Your task to perform on an android device: open a bookmark in the chrome app Image 0: 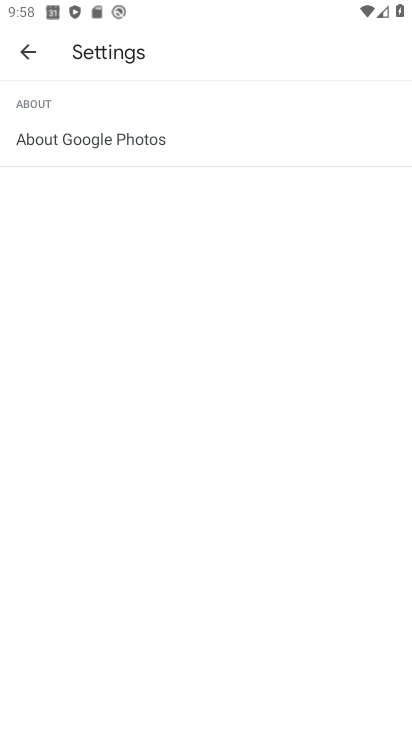
Step 0: press home button
Your task to perform on an android device: open a bookmark in the chrome app Image 1: 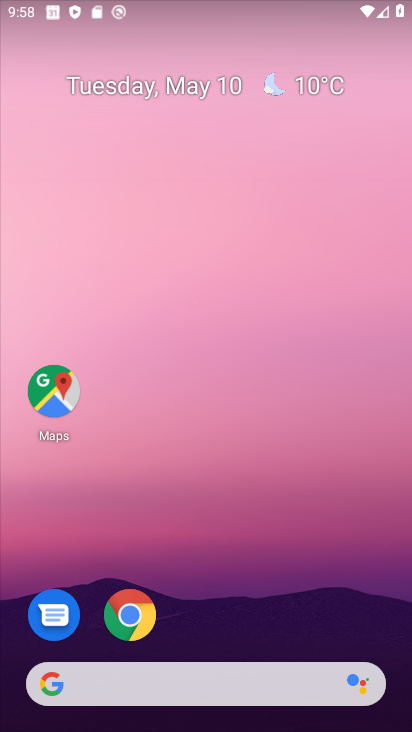
Step 1: click (129, 616)
Your task to perform on an android device: open a bookmark in the chrome app Image 2: 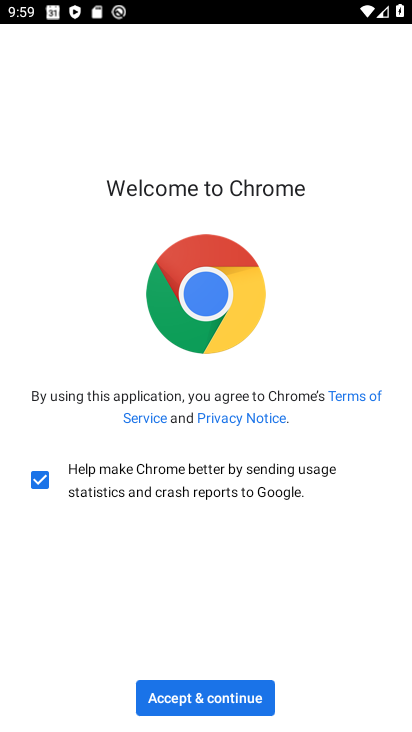
Step 2: click (192, 693)
Your task to perform on an android device: open a bookmark in the chrome app Image 3: 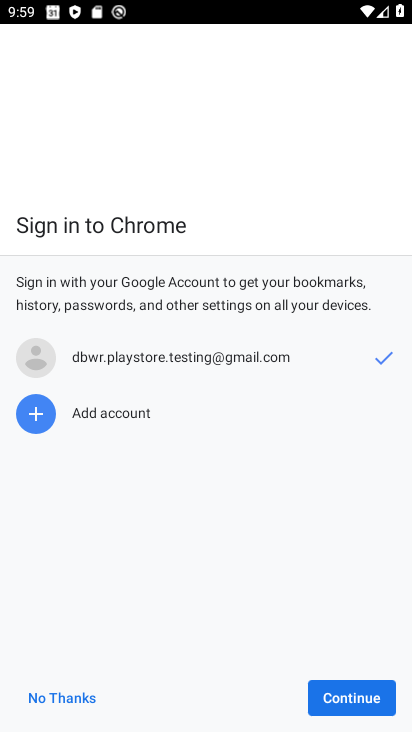
Step 3: click (192, 693)
Your task to perform on an android device: open a bookmark in the chrome app Image 4: 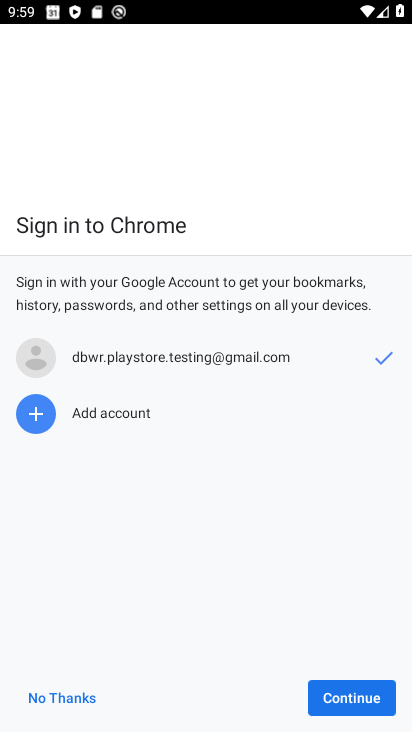
Step 4: click (347, 697)
Your task to perform on an android device: open a bookmark in the chrome app Image 5: 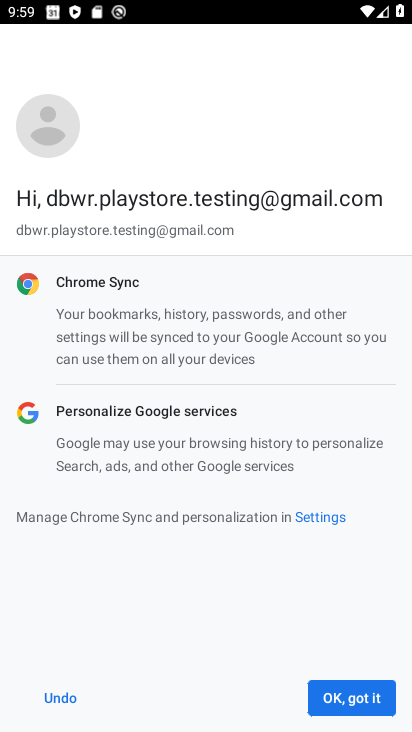
Step 5: click (347, 697)
Your task to perform on an android device: open a bookmark in the chrome app Image 6: 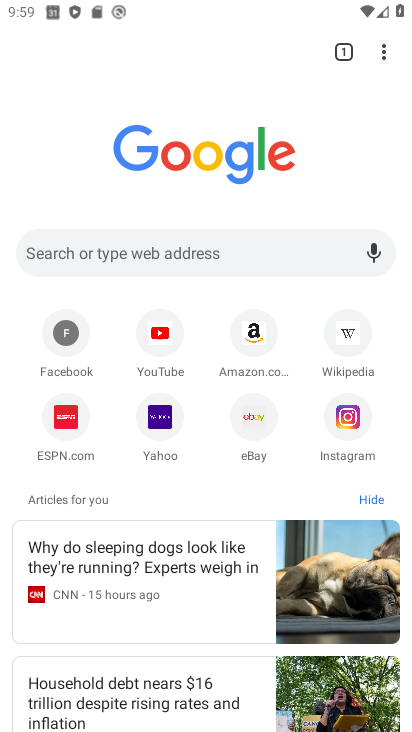
Step 6: click (379, 49)
Your task to perform on an android device: open a bookmark in the chrome app Image 7: 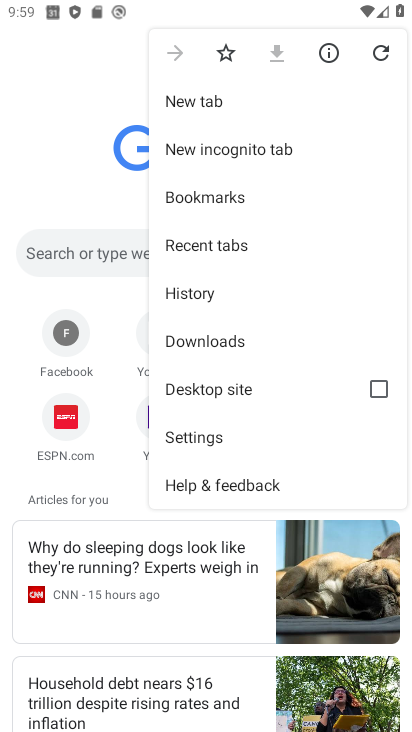
Step 7: click (191, 190)
Your task to perform on an android device: open a bookmark in the chrome app Image 8: 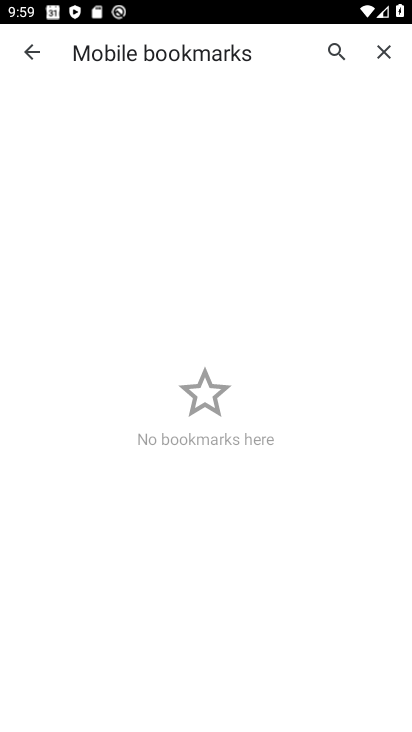
Step 8: task complete